Your task to perform on an android device: Is it going to rain today? Image 0: 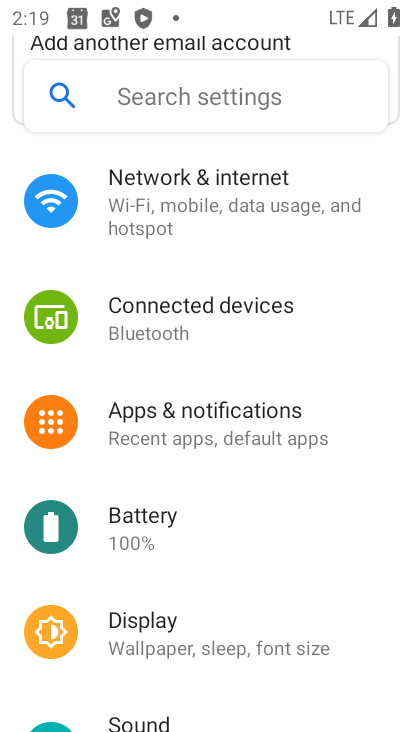
Step 0: press home button
Your task to perform on an android device: Is it going to rain today? Image 1: 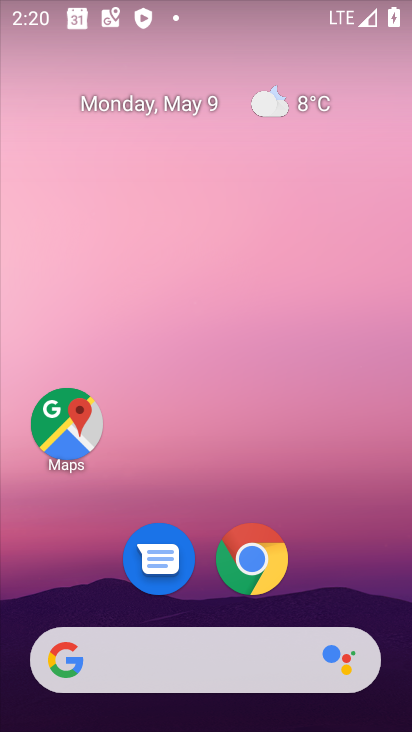
Step 1: click (128, 662)
Your task to perform on an android device: Is it going to rain today? Image 2: 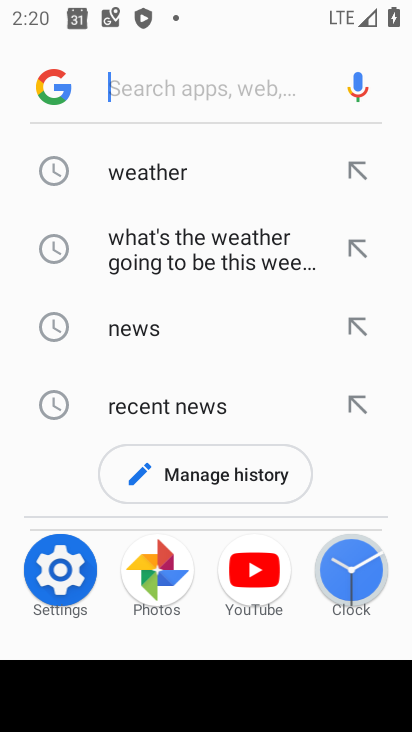
Step 2: click (170, 166)
Your task to perform on an android device: Is it going to rain today? Image 3: 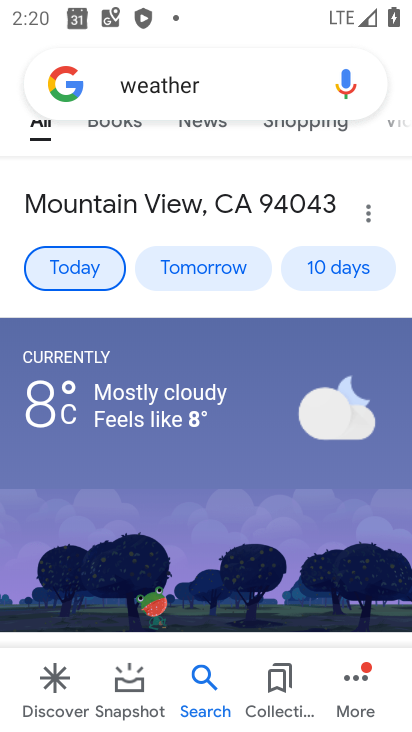
Step 3: task complete